Your task to perform on an android device: Go to privacy settings Image 0: 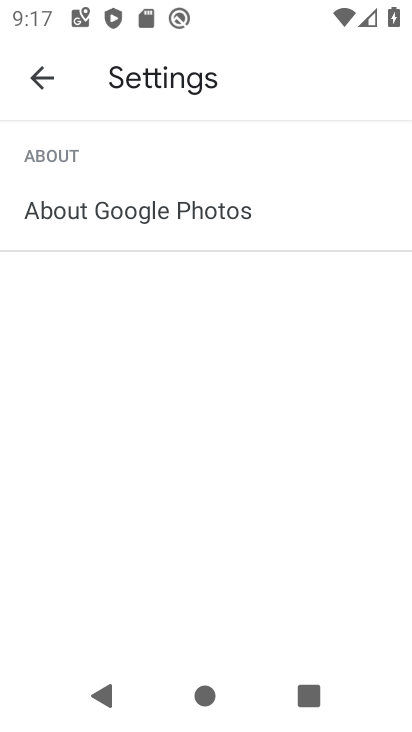
Step 0: press home button
Your task to perform on an android device: Go to privacy settings Image 1: 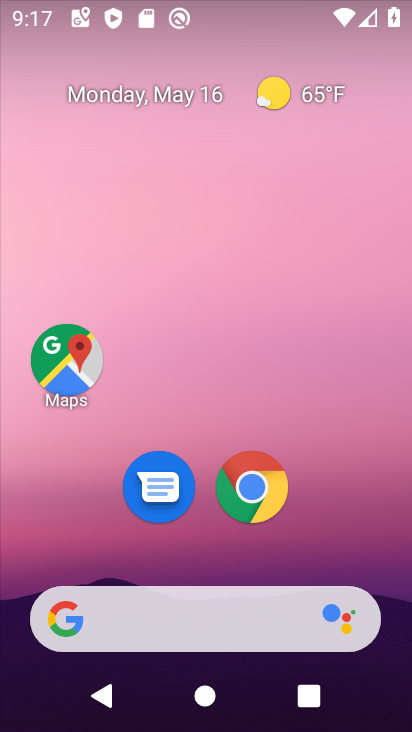
Step 1: drag from (369, 501) to (369, 30)
Your task to perform on an android device: Go to privacy settings Image 2: 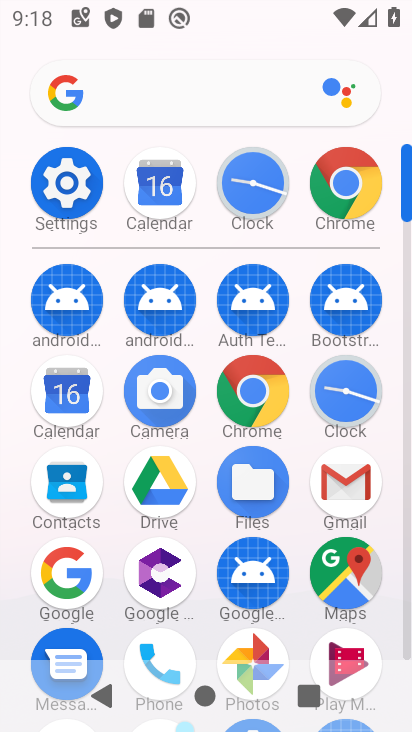
Step 2: click (60, 209)
Your task to perform on an android device: Go to privacy settings Image 3: 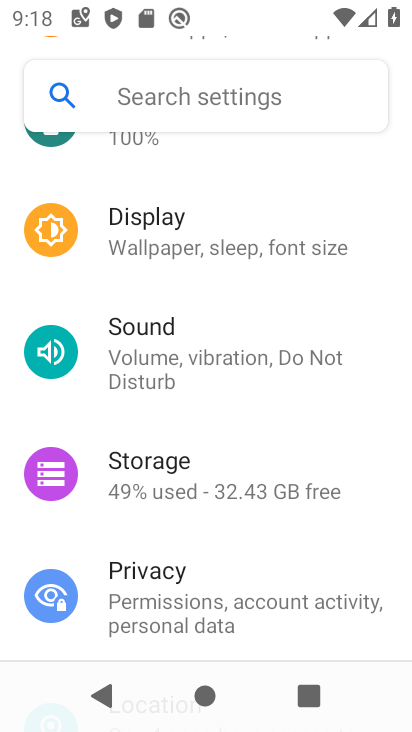
Step 3: drag from (362, 321) to (359, 440)
Your task to perform on an android device: Go to privacy settings Image 4: 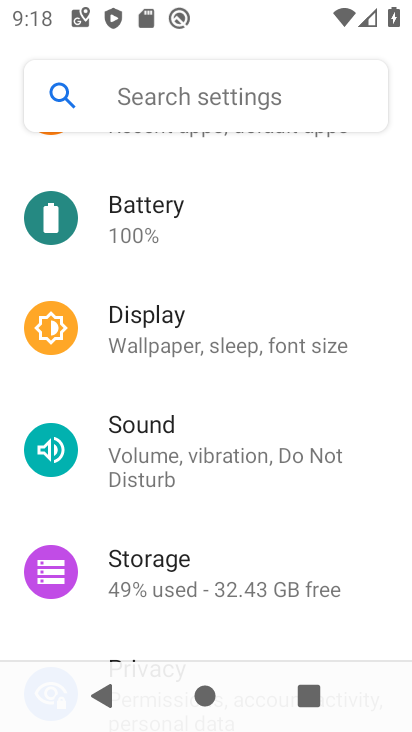
Step 4: drag from (359, 233) to (360, 398)
Your task to perform on an android device: Go to privacy settings Image 5: 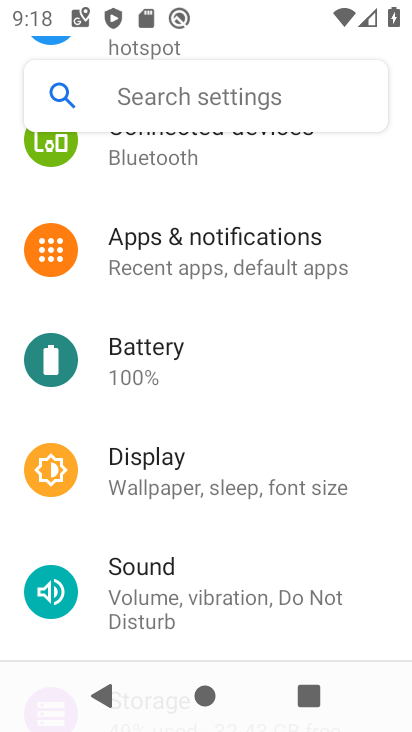
Step 5: drag from (359, 195) to (354, 360)
Your task to perform on an android device: Go to privacy settings Image 6: 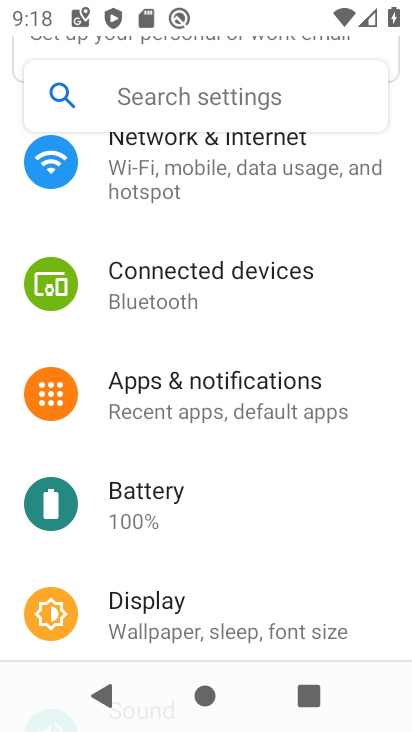
Step 6: drag from (367, 240) to (370, 427)
Your task to perform on an android device: Go to privacy settings Image 7: 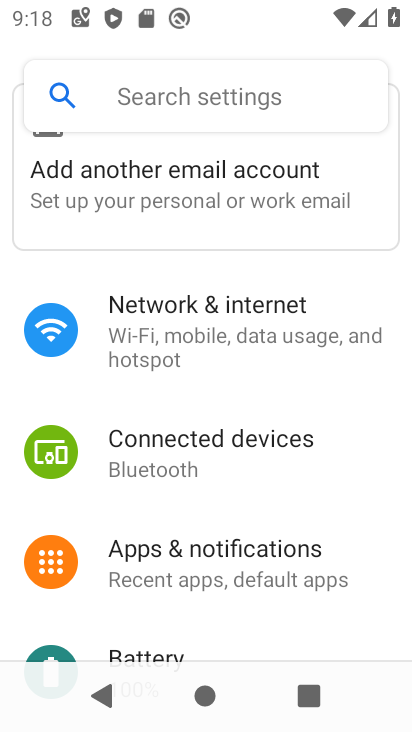
Step 7: drag from (369, 574) to (353, 399)
Your task to perform on an android device: Go to privacy settings Image 8: 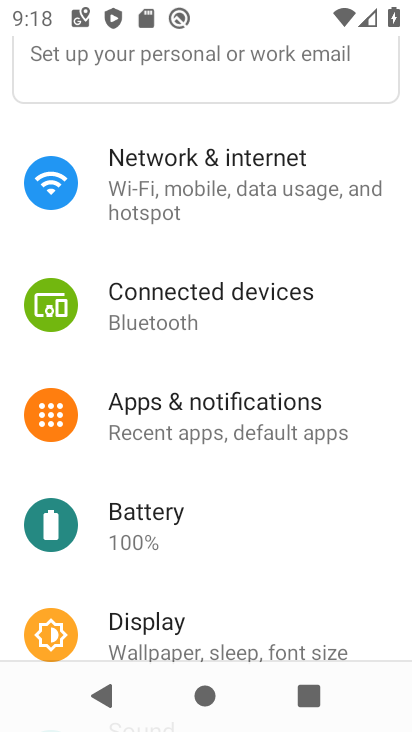
Step 8: drag from (345, 546) to (363, 345)
Your task to perform on an android device: Go to privacy settings Image 9: 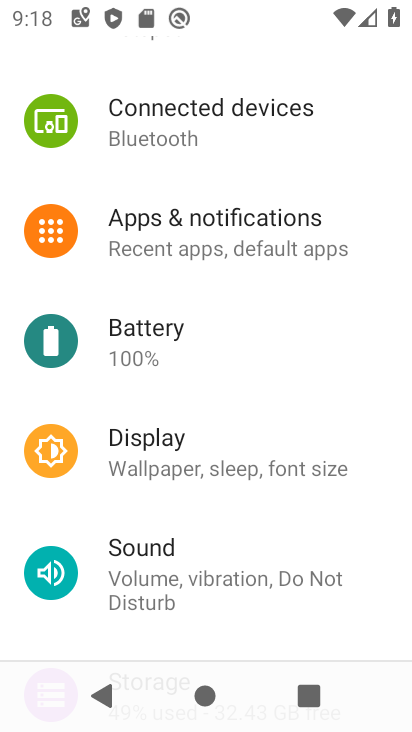
Step 9: drag from (385, 506) to (383, 349)
Your task to perform on an android device: Go to privacy settings Image 10: 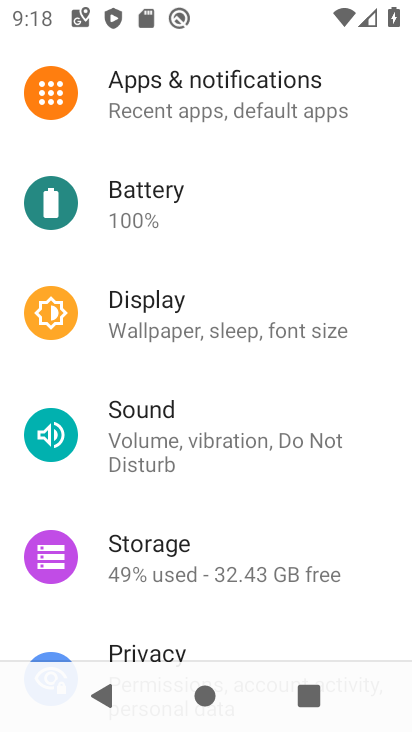
Step 10: drag from (369, 540) to (363, 348)
Your task to perform on an android device: Go to privacy settings Image 11: 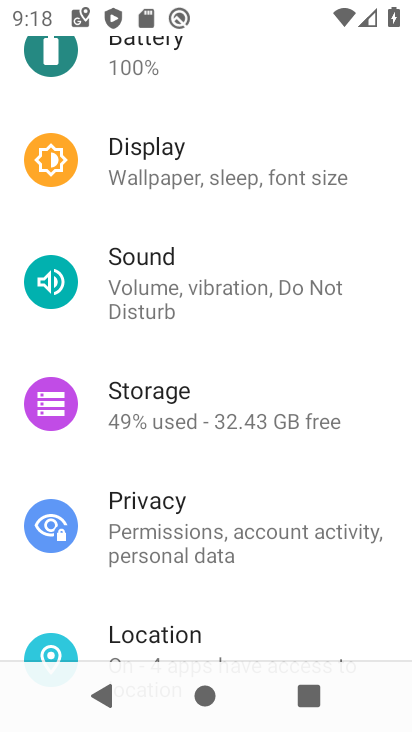
Step 11: drag from (335, 604) to (338, 411)
Your task to perform on an android device: Go to privacy settings Image 12: 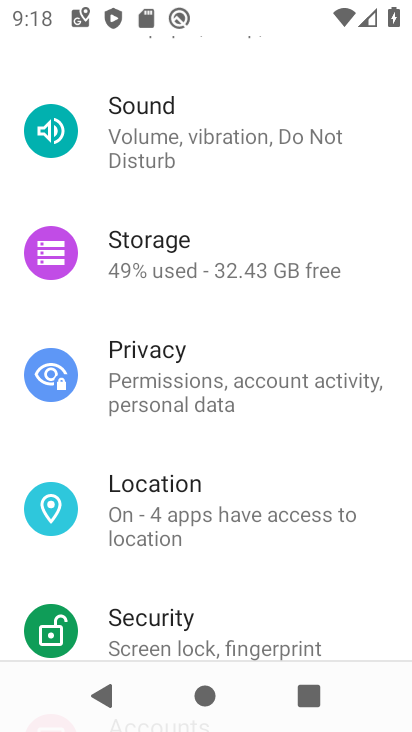
Step 12: drag from (328, 569) to (343, 365)
Your task to perform on an android device: Go to privacy settings Image 13: 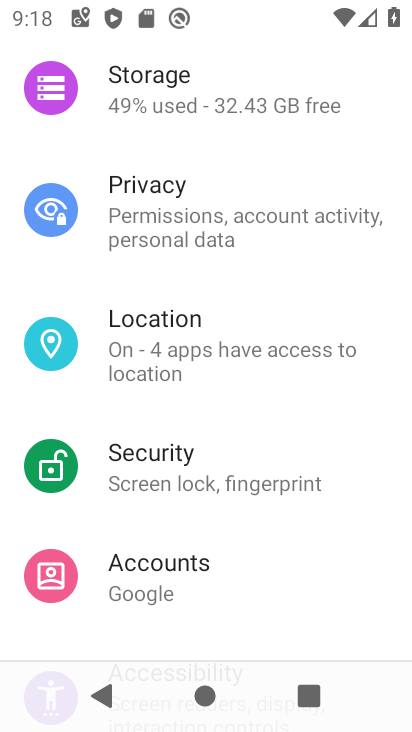
Step 13: drag from (338, 561) to (358, 405)
Your task to perform on an android device: Go to privacy settings Image 14: 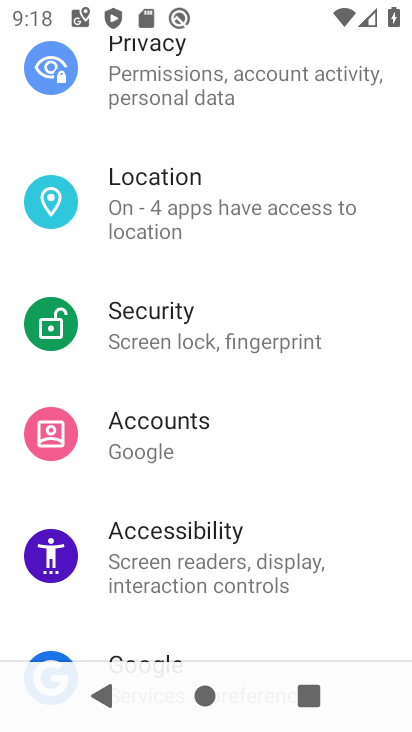
Step 14: drag from (353, 575) to (364, 409)
Your task to perform on an android device: Go to privacy settings Image 15: 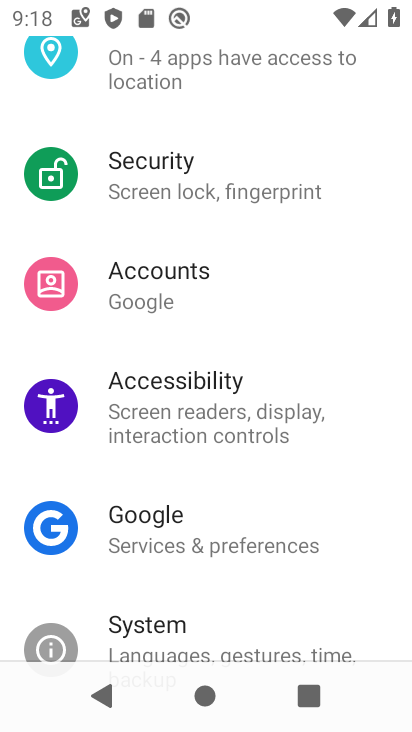
Step 15: drag from (331, 592) to (347, 386)
Your task to perform on an android device: Go to privacy settings Image 16: 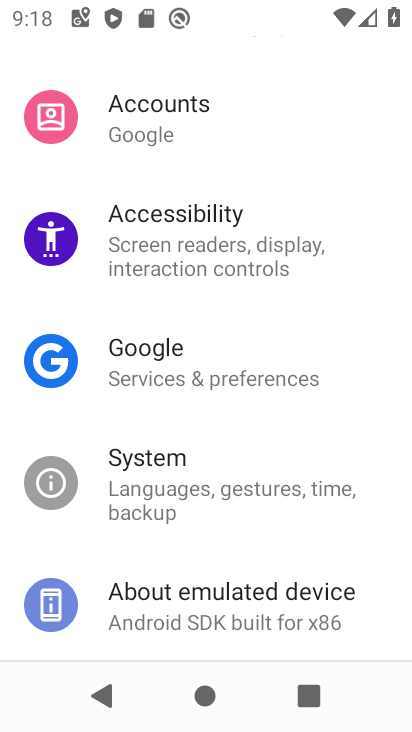
Step 16: drag from (351, 284) to (368, 435)
Your task to perform on an android device: Go to privacy settings Image 17: 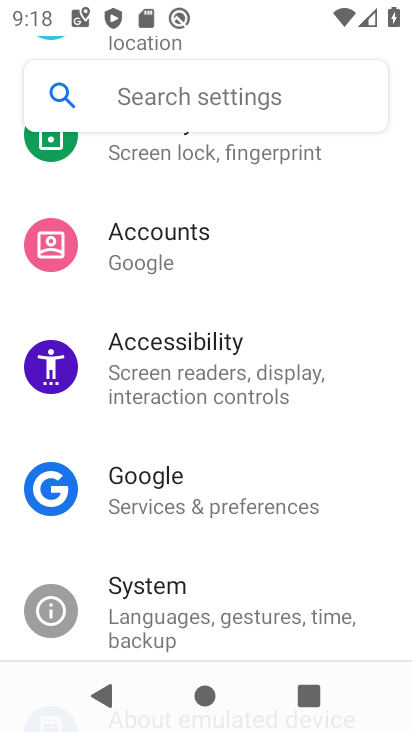
Step 17: drag from (353, 287) to (354, 439)
Your task to perform on an android device: Go to privacy settings Image 18: 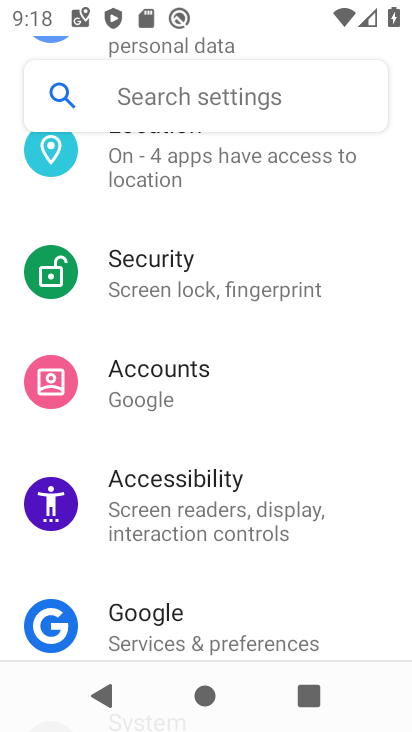
Step 18: drag from (366, 250) to (330, 462)
Your task to perform on an android device: Go to privacy settings Image 19: 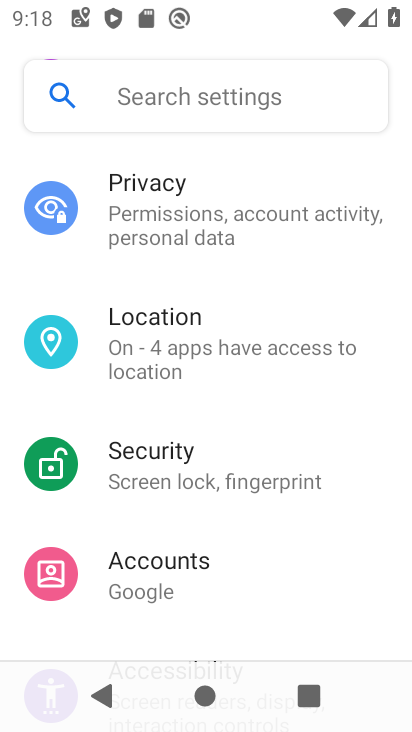
Step 19: click (281, 217)
Your task to perform on an android device: Go to privacy settings Image 20: 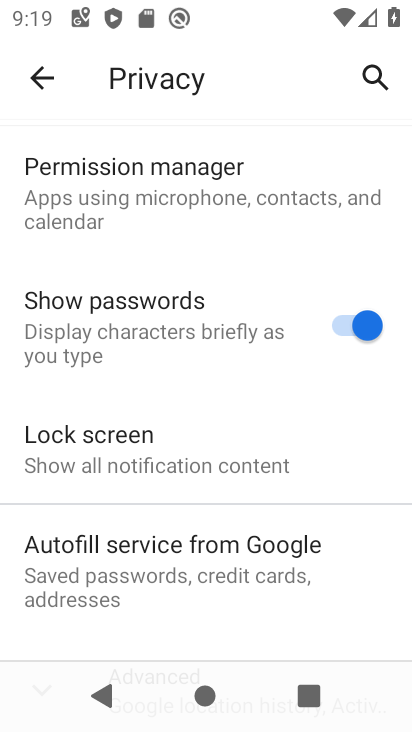
Step 20: task complete